Your task to perform on an android device: check storage Image 0: 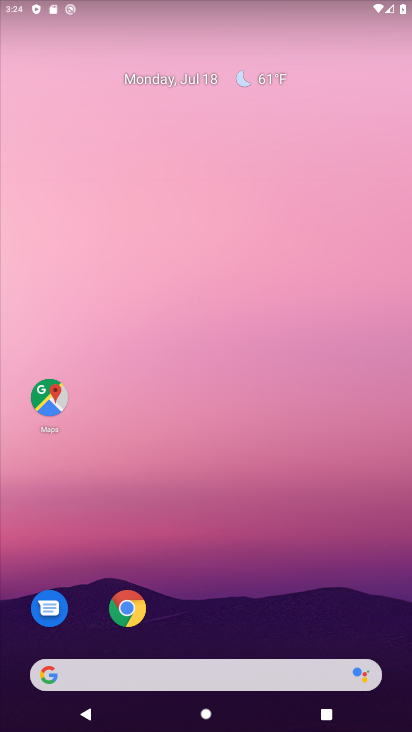
Step 0: drag from (315, 577) to (344, 77)
Your task to perform on an android device: check storage Image 1: 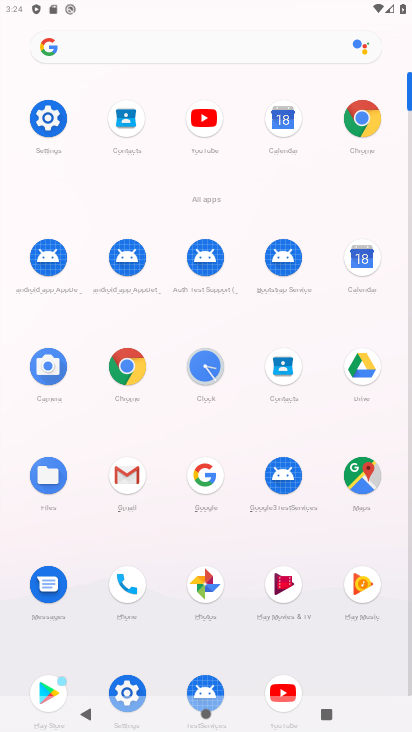
Step 1: click (43, 117)
Your task to perform on an android device: check storage Image 2: 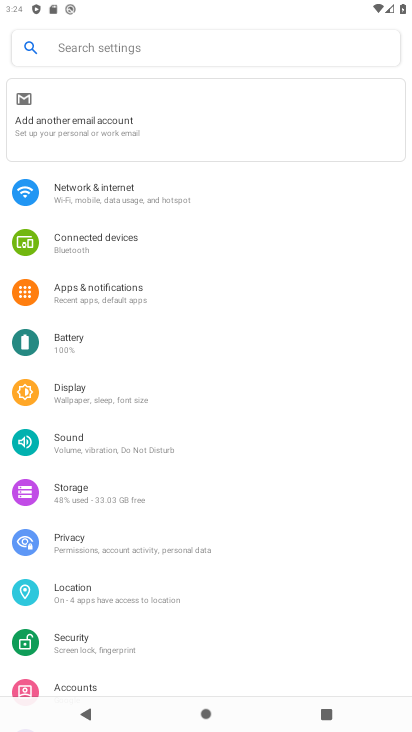
Step 2: click (105, 494)
Your task to perform on an android device: check storage Image 3: 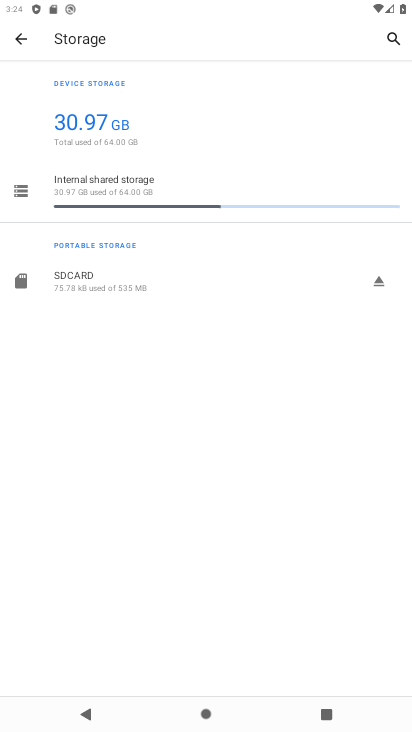
Step 3: task complete